Your task to perform on an android device: Turn on the flashlight Image 0: 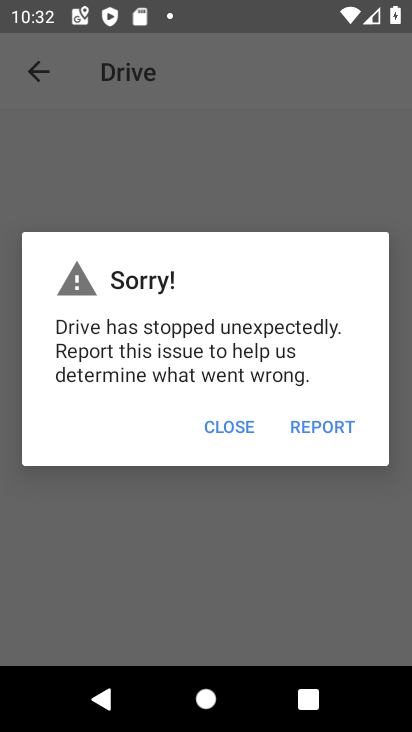
Step 0: press back button
Your task to perform on an android device: Turn on the flashlight Image 1: 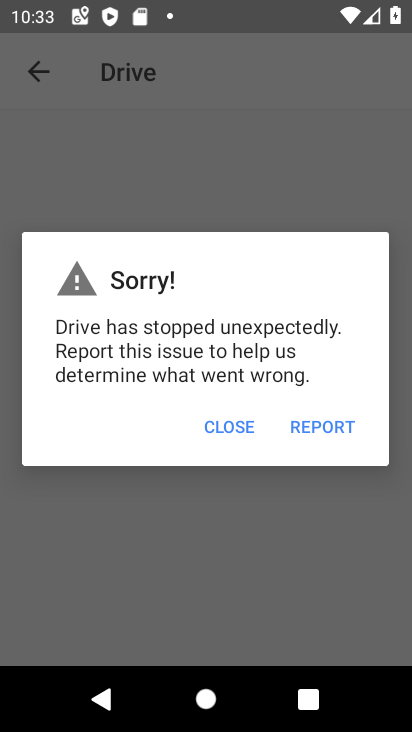
Step 1: press back button
Your task to perform on an android device: Turn on the flashlight Image 2: 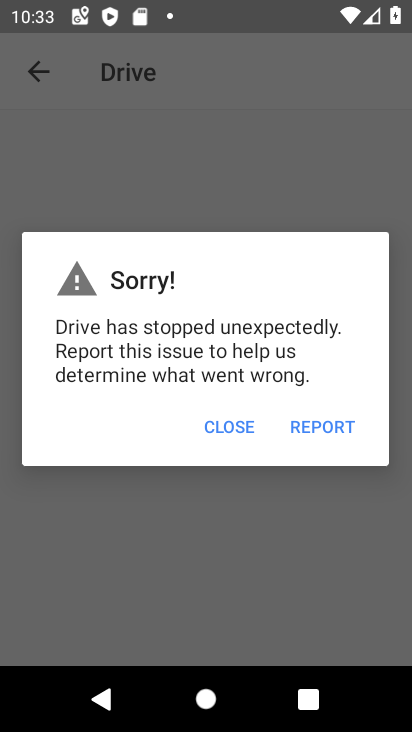
Step 2: press home button
Your task to perform on an android device: Turn on the flashlight Image 3: 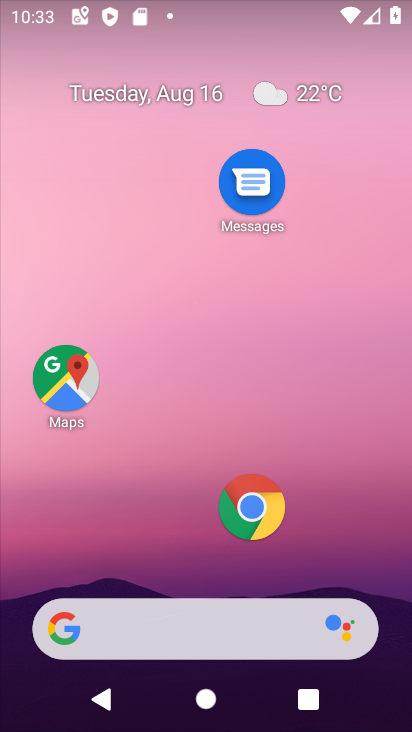
Step 3: drag from (126, 586) to (282, 20)
Your task to perform on an android device: Turn on the flashlight Image 4: 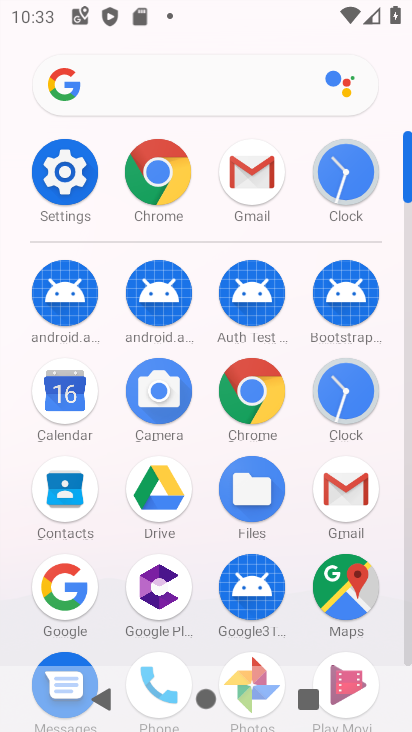
Step 4: click (66, 173)
Your task to perform on an android device: Turn on the flashlight Image 5: 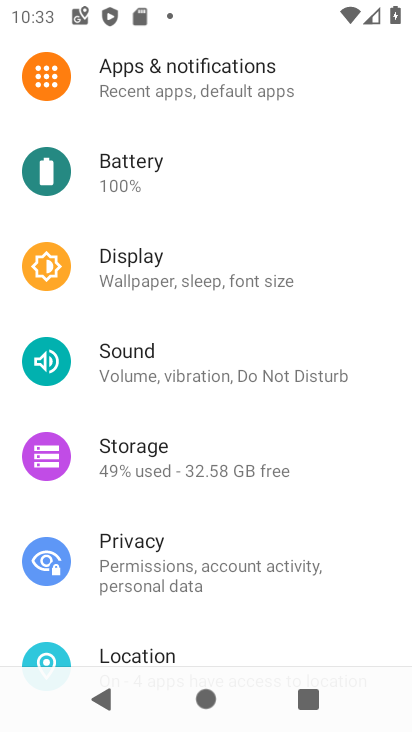
Step 5: drag from (231, 115) to (259, 570)
Your task to perform on an android device: Turn on the flashlight Image 6: 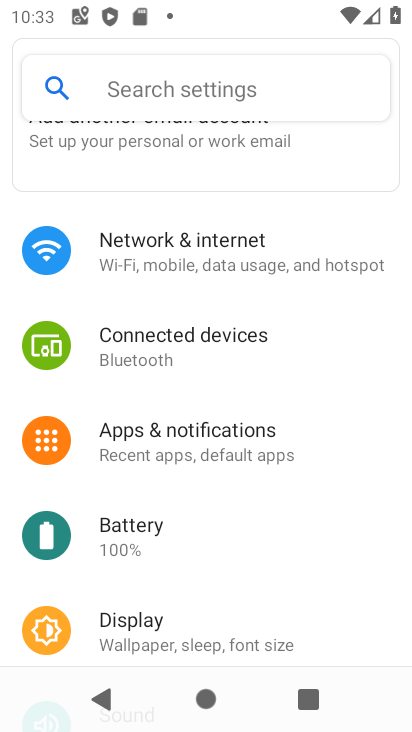
Step 6: click (152, 82)
Your task to perform on an android device: Turn on the flashlight Image 7: 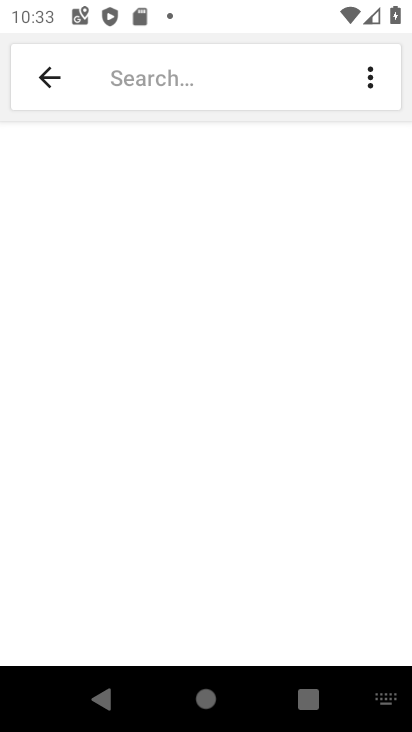
Step 7: type "flashlight"
Your task to perform on an android device: Turn on the flashlight Image 8: 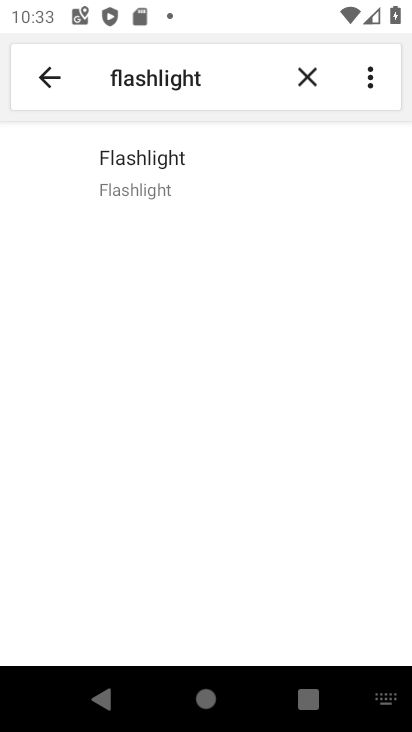
Step 8: click (143, 179)
Your task to perform on an android device: Turn on the flashlight Image 9: 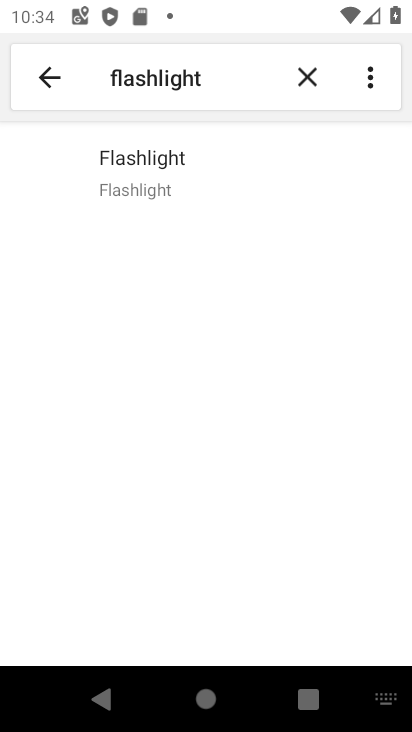
Step 9: task complete